Your task to perform on an android device: toggle javascript in the chrome app Image 0: 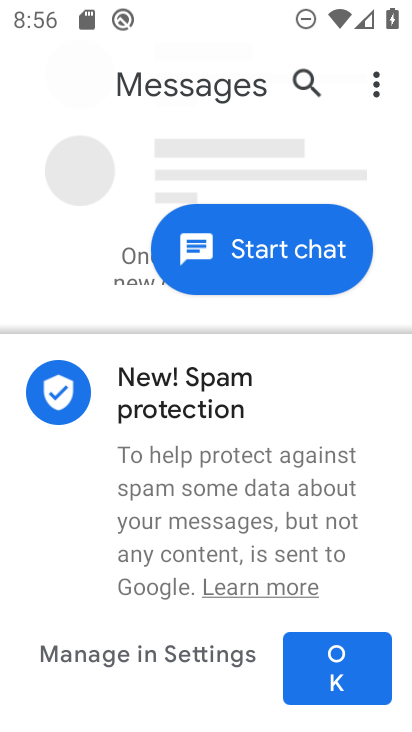
Step 0: press home button
Your task to perform on an android device: toggle javascript in the chrome app Image 1: 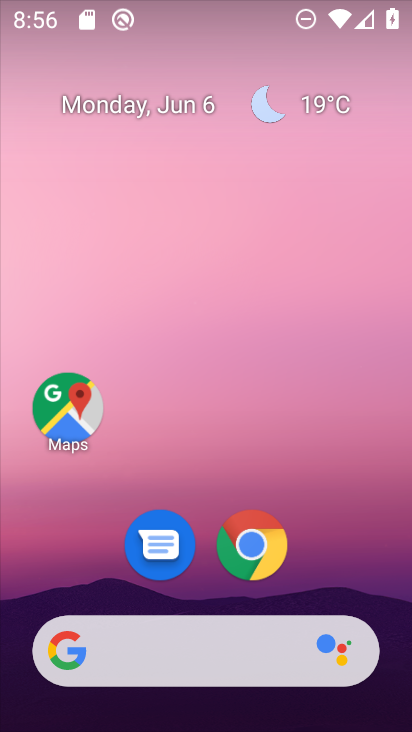
Step 1: click (281, 551)
Your task to perform on an android device: toggle javascript in the chrome app Image 2: 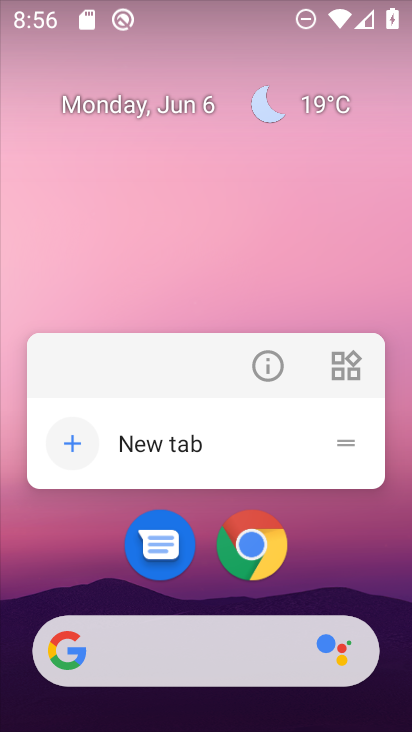
Step 2: click (238, 524)
Your task to perform on an android device: toggle javascript in the chrome app Image 3: 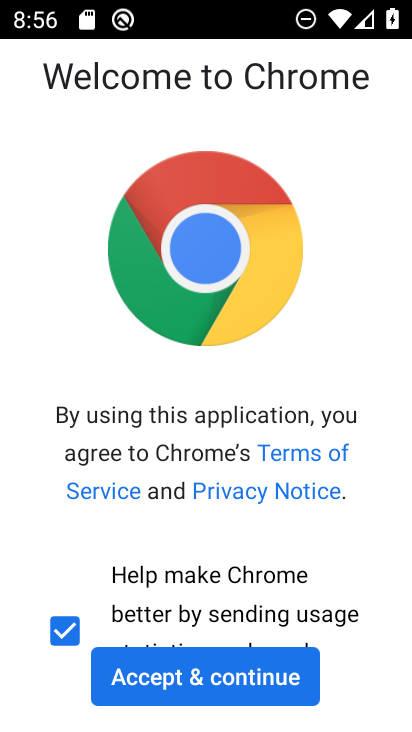
Step 3: click (239, 669)
Your task to perform on an android device: toggle javascript in the chrome app Image 4: 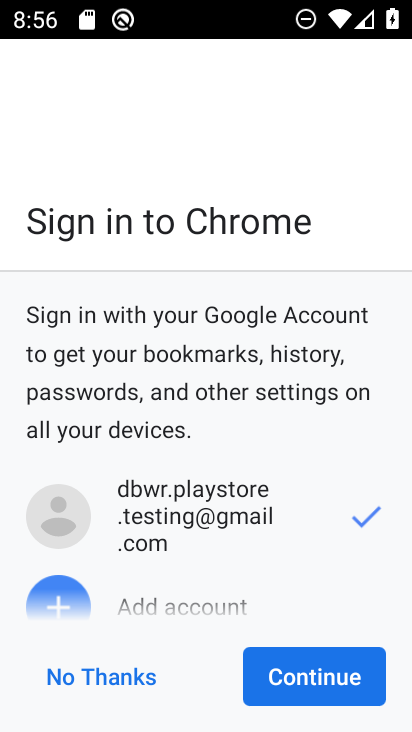
Step 4: click (334, 680)
Your task to perform on an android device: toggle javascript in the chrome app Image 5: 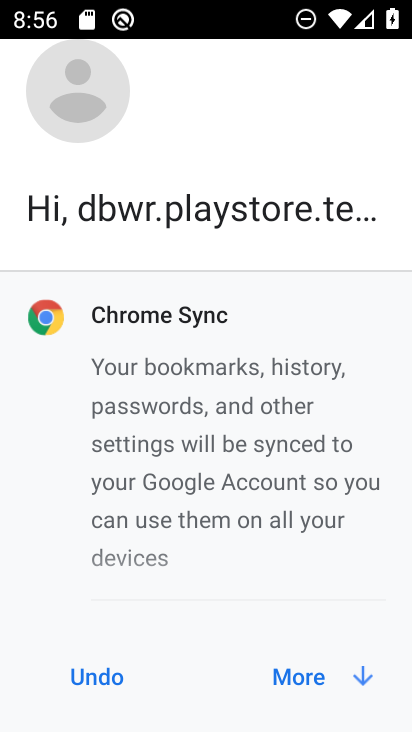
Step 5: click (307, 673)
Your task to perform on an android device: toggle javascript in the chrome app Image 6: 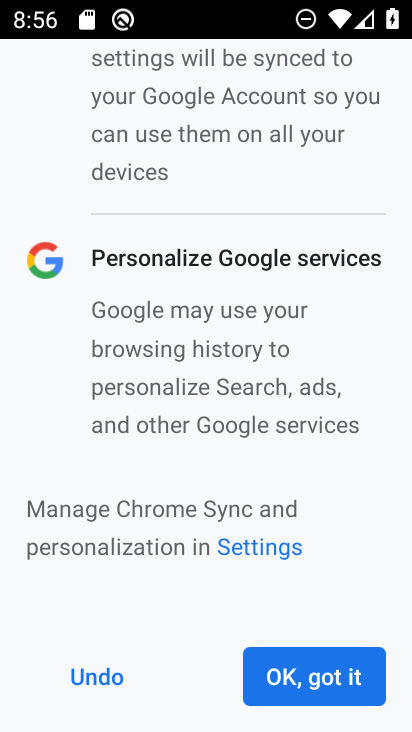
Step 6: click (307, 673)
Your task to perform on an android device: toggle javascript in the chrome app Image 7: 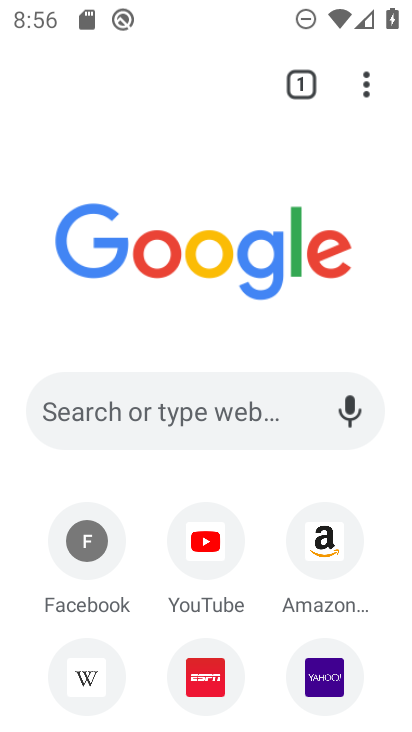
Step 7: click (351, 82)
Your task to perform on an android device: toggle javascript in the chrome app Image 8: 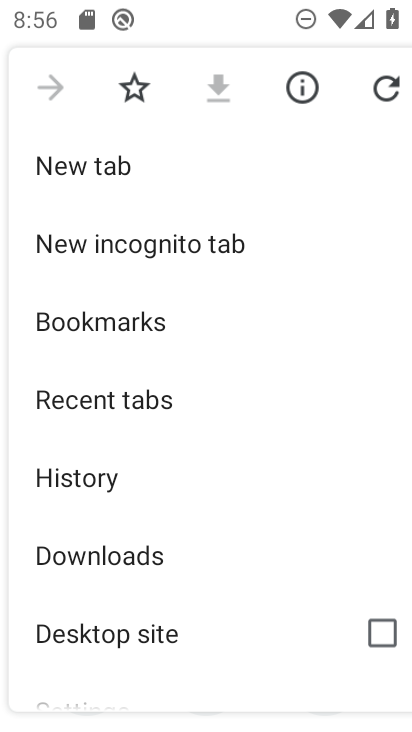
Step 8: drag from (98, 600) to (168, 237)
Your task to perform on an android device: toggle javascript in the chrome app Image 9: 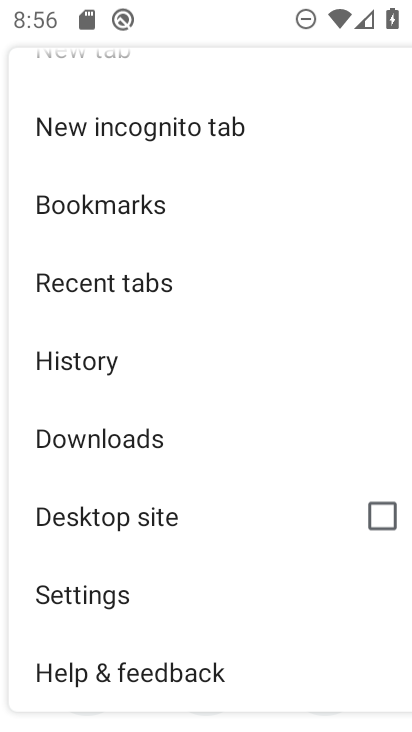
Step 9: click (95, 593)
Your task to perform on an android device: toggle javascript in the chrome app Image 10: 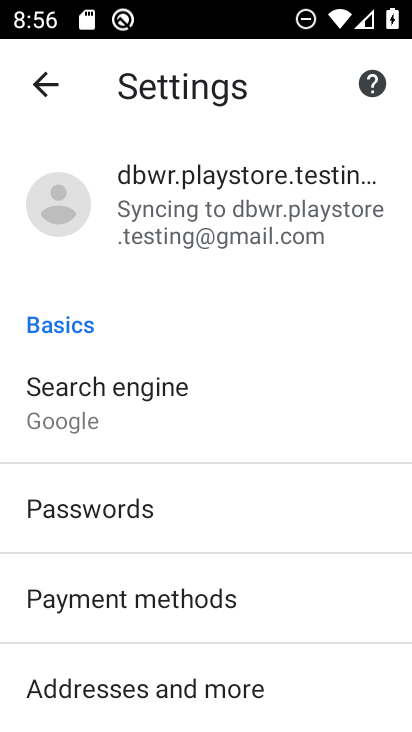
Step 10: drag from (72, 580) to (118, 309)
Your task to perform on an android device: toggle javascript in the chrome app Image 11: 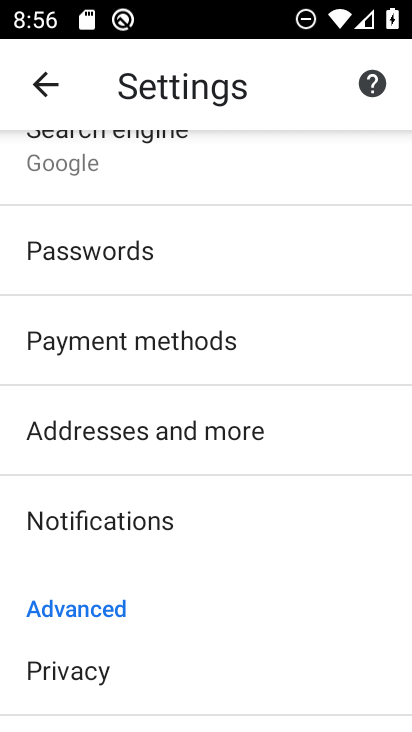
Step 11: drag from (105, 542) to (149, 241)
Your task to perform on an android device: toggle javascript in the chrome app Image 12: 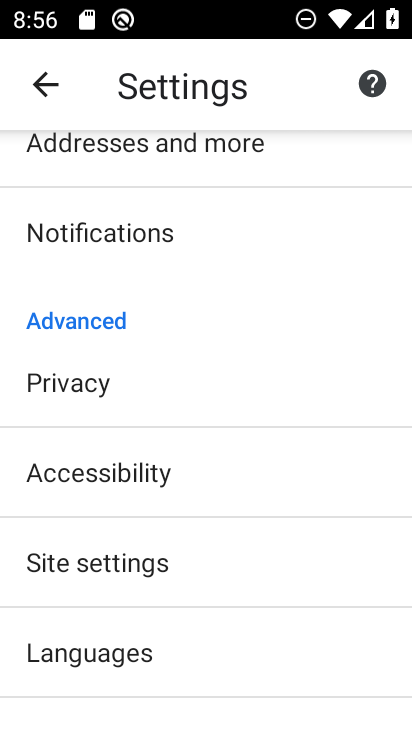
Step 12: drag from (139, 557) to (186, 286)
Your task to perform on an android device: toggle javascript in the chrome app Image 13: 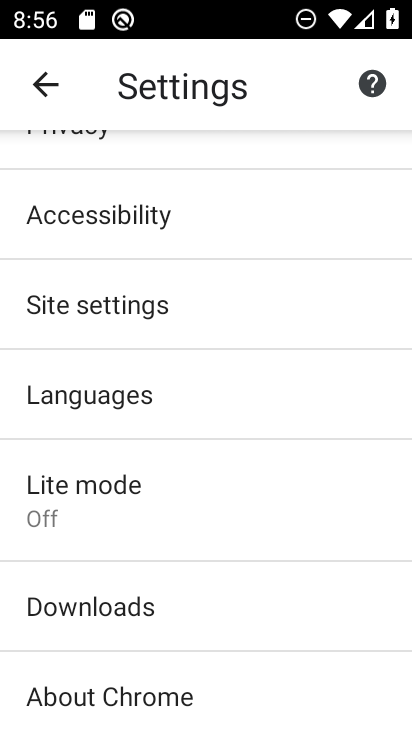
Step 13: click (144, 325)
Your task to perform on an android device: toggle javascript in the chrome app Image 14: 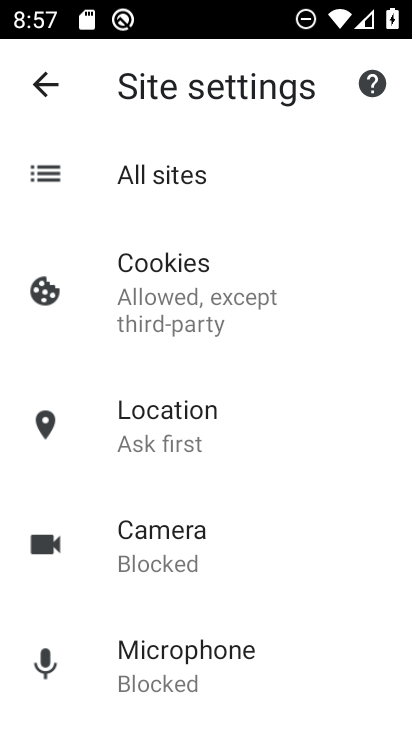
Step 14: drag from (184, 553) to (244, 269)
Your task to perform on an android device: toggle javascript in the chrome app Image 15: 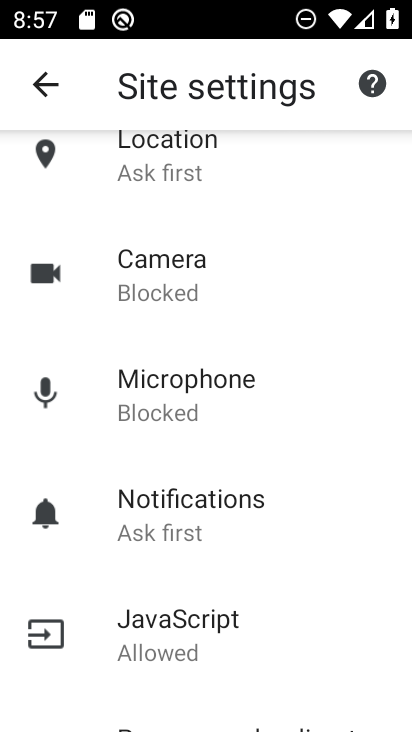
Step 15: click (185, 637)
Your task to perform on an android device: toggle javascript in the chrome app Image 16: 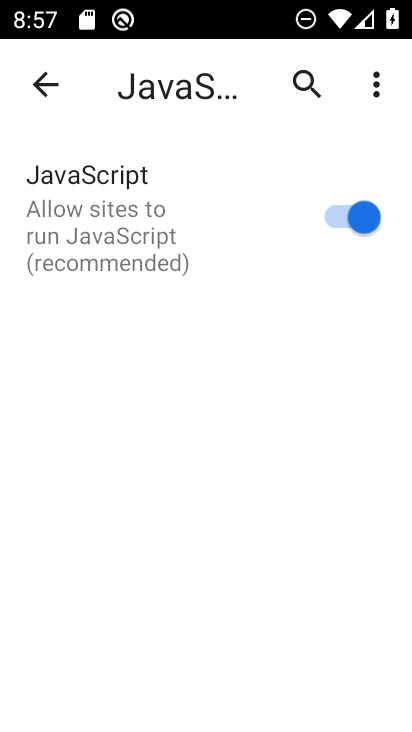
Step 16: click (306, 202)
Your task to perform on an android device: toggle javascript in the chrome app Image 17: 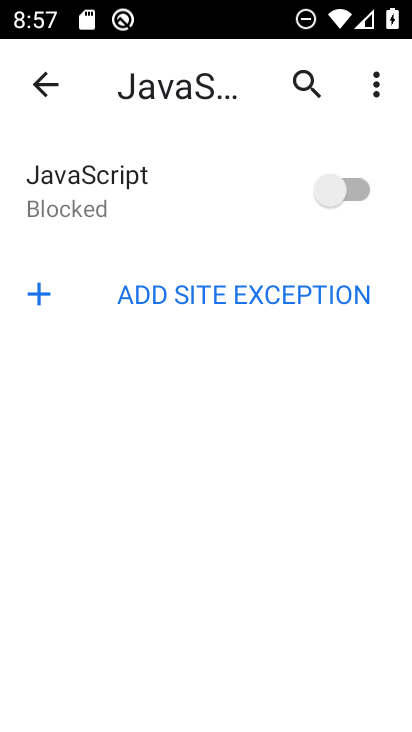
Step 17: task complete